Your task to perform on an android device: Show me productivity apps on the Play Store Image 0: 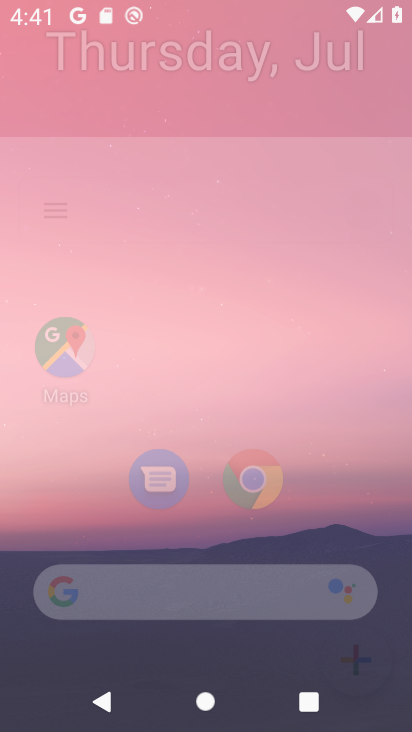
Step 0: drag from (225, 622) to (183, 16)
Your task to perform on an android device: Show me productivity apps on the Play Store Image 1: 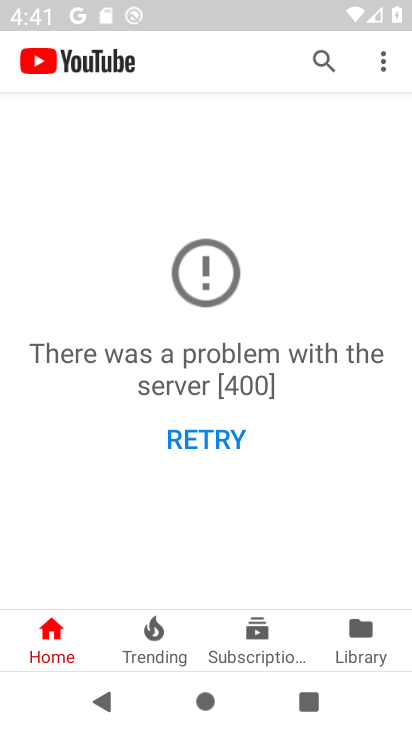
Step 1: press home button
Your task to perform on an android device: Show me productivity apps on the Play Store Image 2: 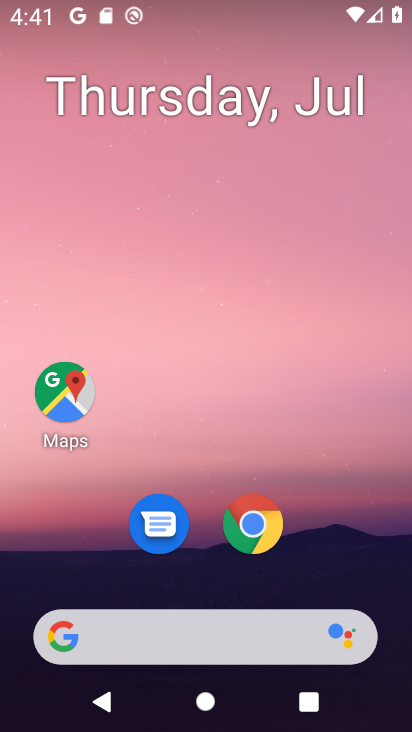
Step 2: drag from (183, 628) to (106, 228)
Your task to perform on an android device: Show me productivity apps on the Play Store Image 3: 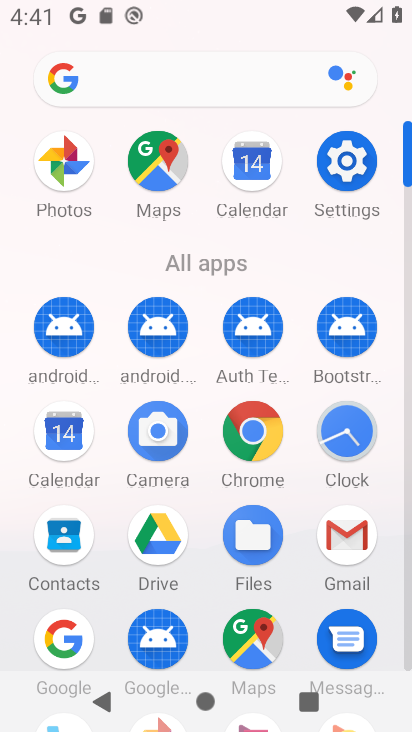
Step 3: drag from (206, 607) to (193, 371)
Your task to perform on an android device: Show me productivity apps on the Play Store Image 4: 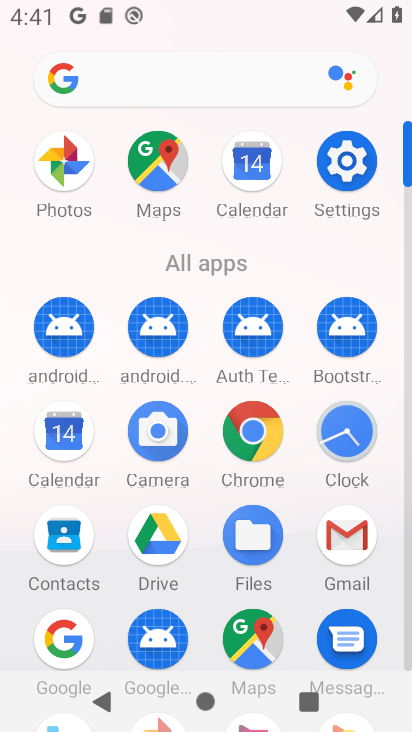
Step 4: drag from (200, 656) to (163, 395)
Your task to perform on an android device: Show me productivity apps on the Play Store Image 5: 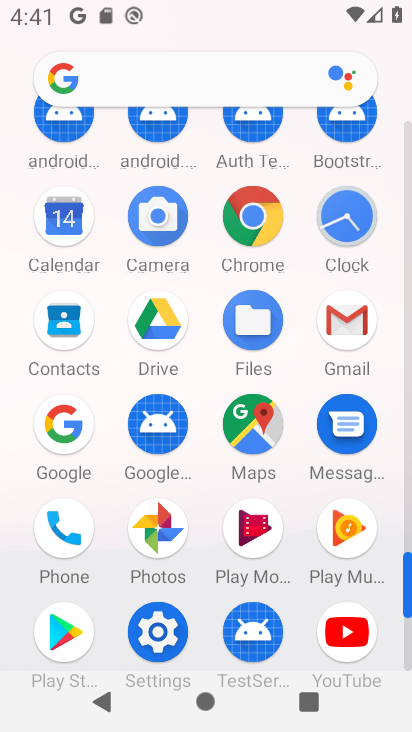
Step 5: click (75, 625)
Your task to perform on an android device: Show me productivity apps on the Play Store Image 6: 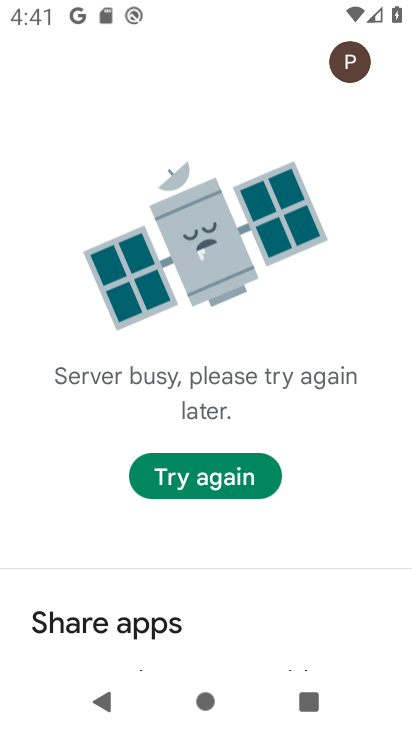
Step 6: task complete